Your task to perform on an android device: see creations saved in the google photos Image 0: 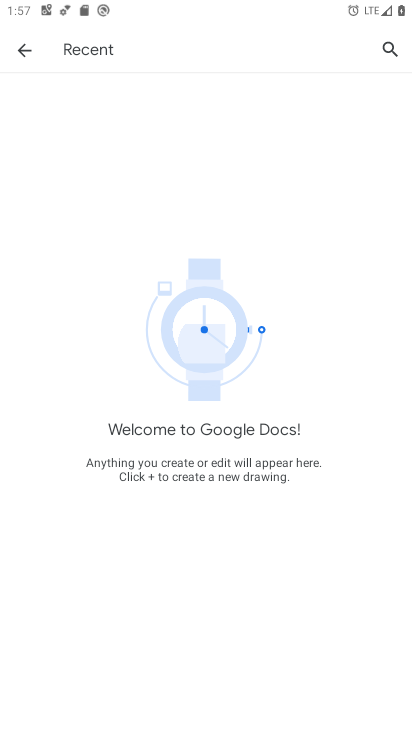
Step 0: press home button
Your task to perform on an android device: see creations saved in the google photos Image 1: 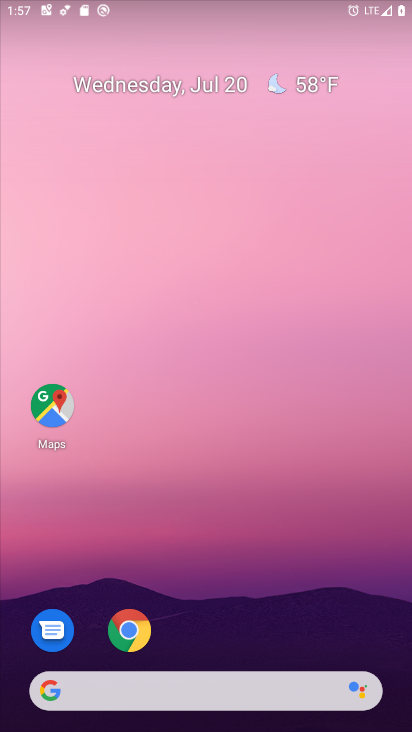
Step 1: drag from (260, 603) to (276, 139)
Your task to perform on an android device: see creations saved in the google photos Image 2: 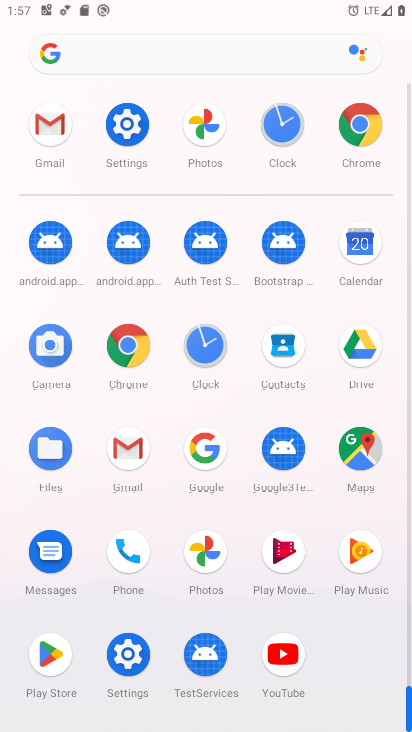
Step 2: click (209, 560)
Your task to perform on an android device: see creations saved in the google photos Image 3: 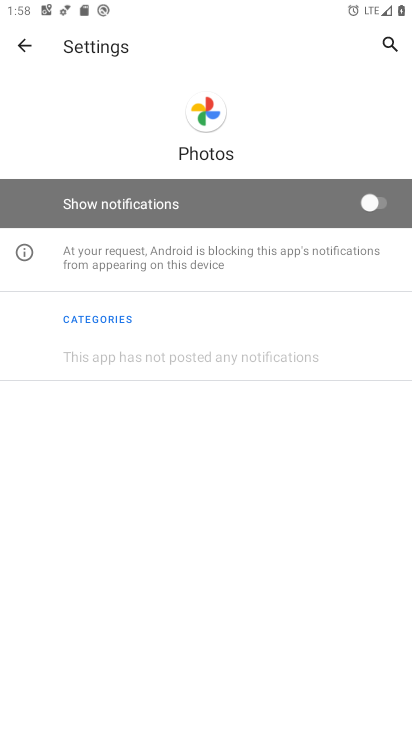
Step 3: press home button
Your task to perform on an android device: see creations saved in the google photos Image 4: 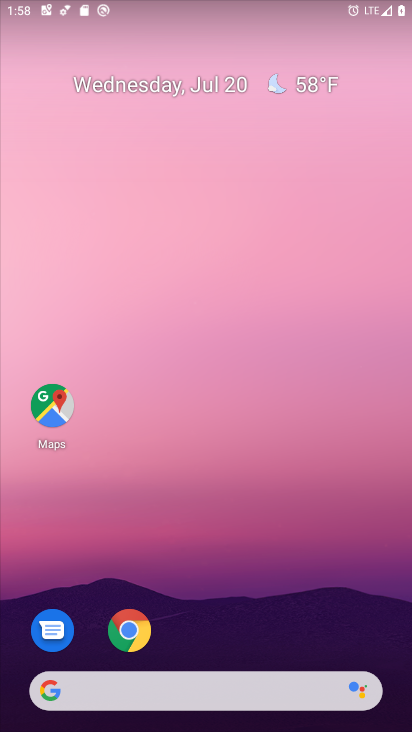
Step 4: drag from (125, 682) to (209, 180)
Your task to perform on an android device: see creations saved in the google photos Image 5: 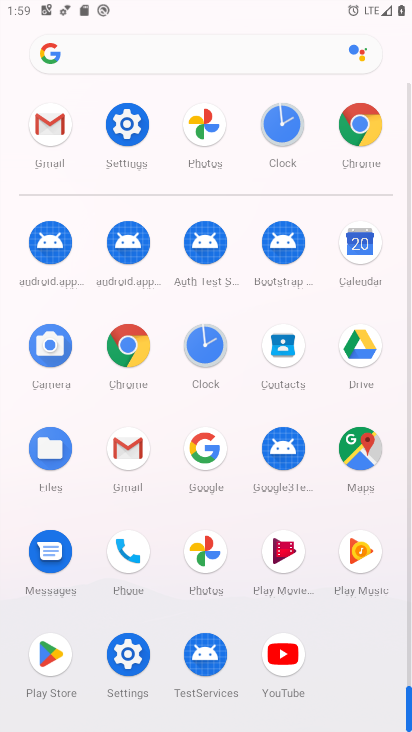
Step 5: click (210, 462)
Your task to perform on an android device: see creations saved in the google photos Image 6: 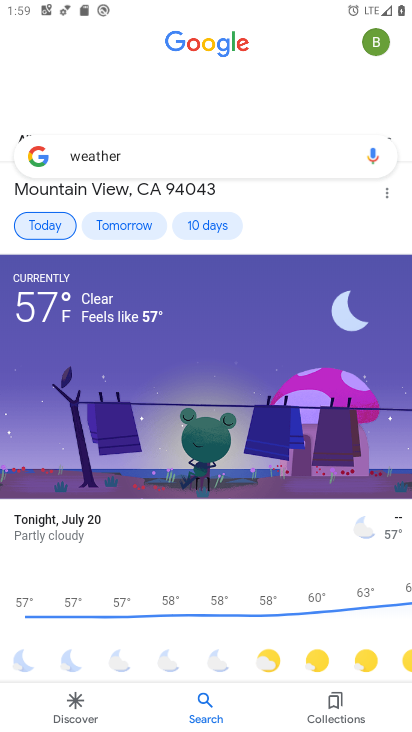
Step 6: press home button
Your task to perform on an android device: see creations saved in the google photos Image 7: 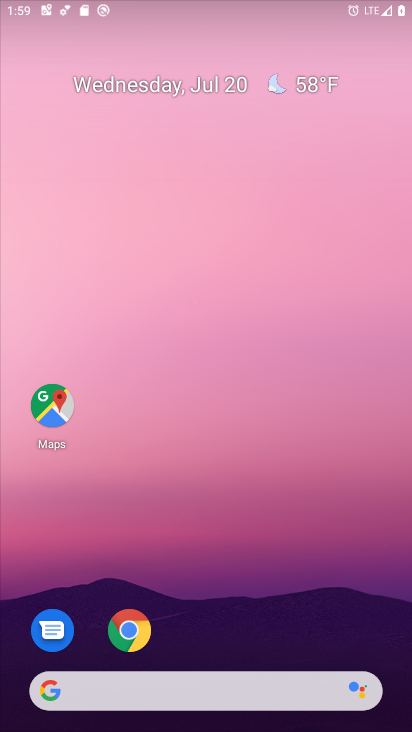
Step 7: drag from (216, 642) to (290, 218)
Your task to perform on an android device: see creations saved in the google photos Image 8: 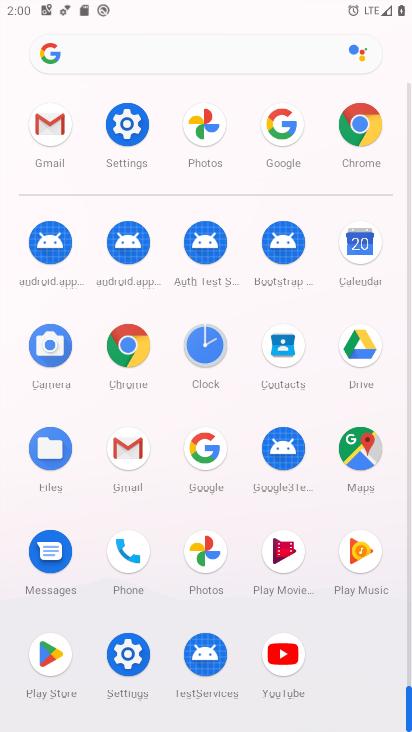
Step 8: click (201, 577)
Your task to perform on an android device: see creations saved in the google photos Image 9: 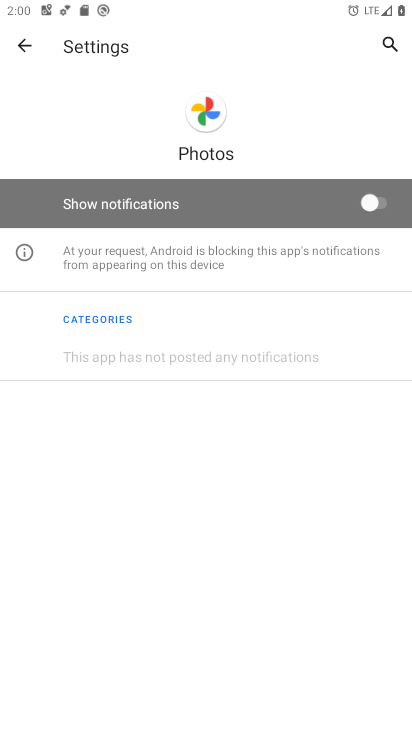
Step 9: task complete